Your task to perform on an android device: open app "Truecaller" (install if not already installed) Image 0: 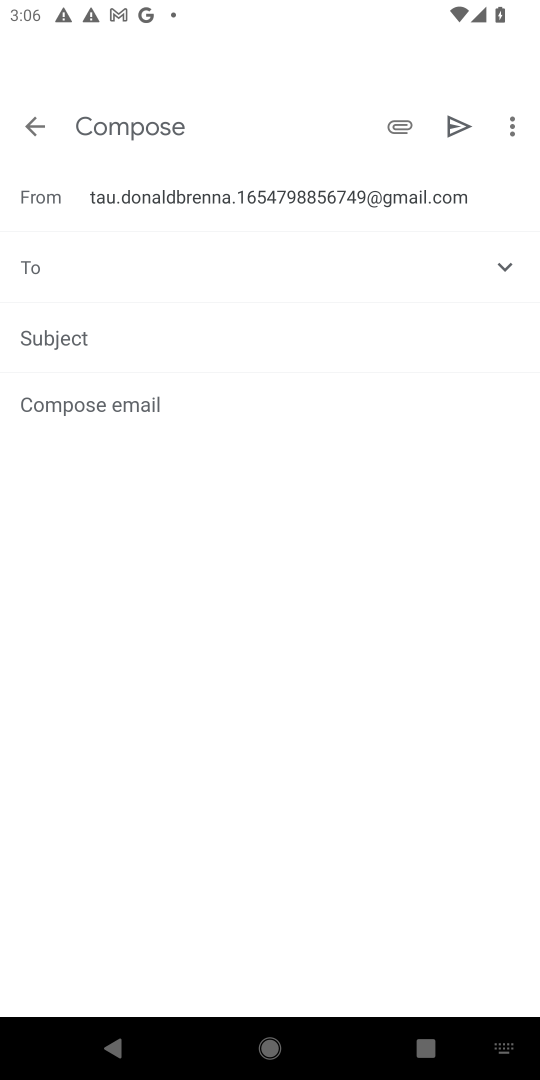
Step 0: press home button
Your task to perform on an android device: open app "Truecaller" (install if not already installed) Image 1: 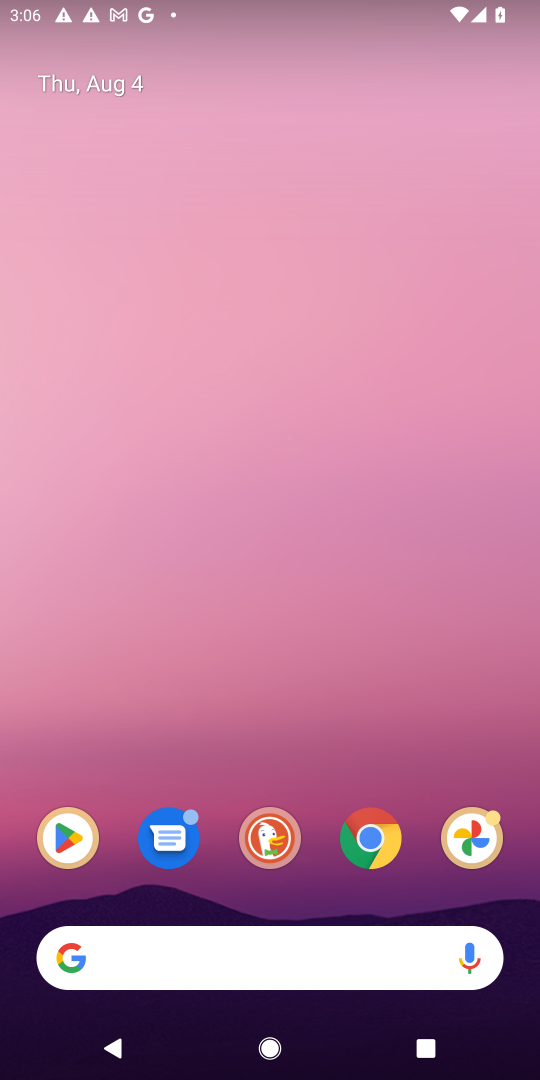
Step 1: click (66, 835)
Your task to perform on an android device: open app "Truecaller" (install if not already installed) Image 2: 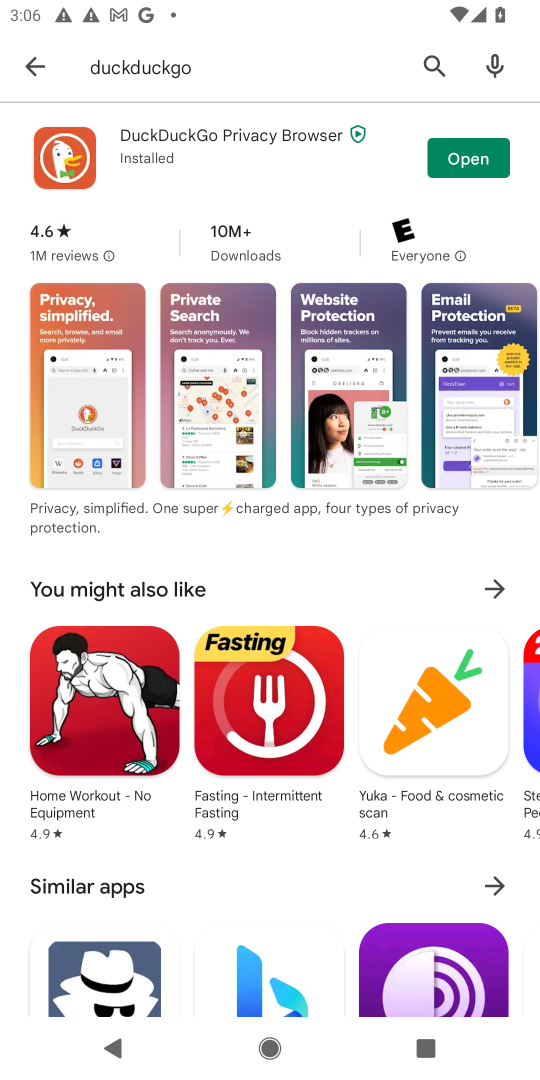
Step 2: click (443, 60)
Your task to perform on an android device: open app "Truecaller" (install if not already installed) Image 3: 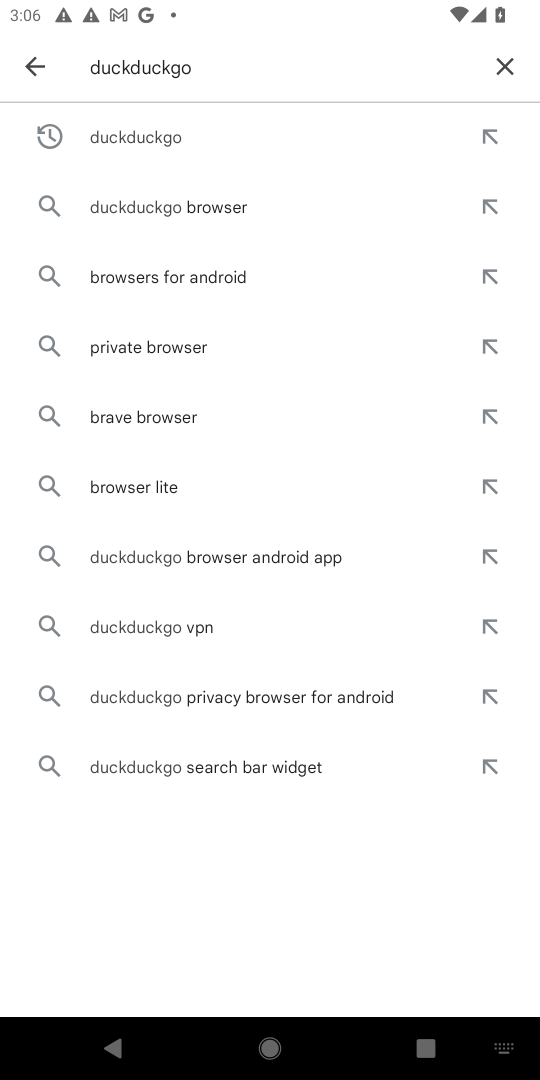
Step 3: click (503, 60)
Your task to perform on an android device: open app "Truecaller" (install if not already installed) Image 4: 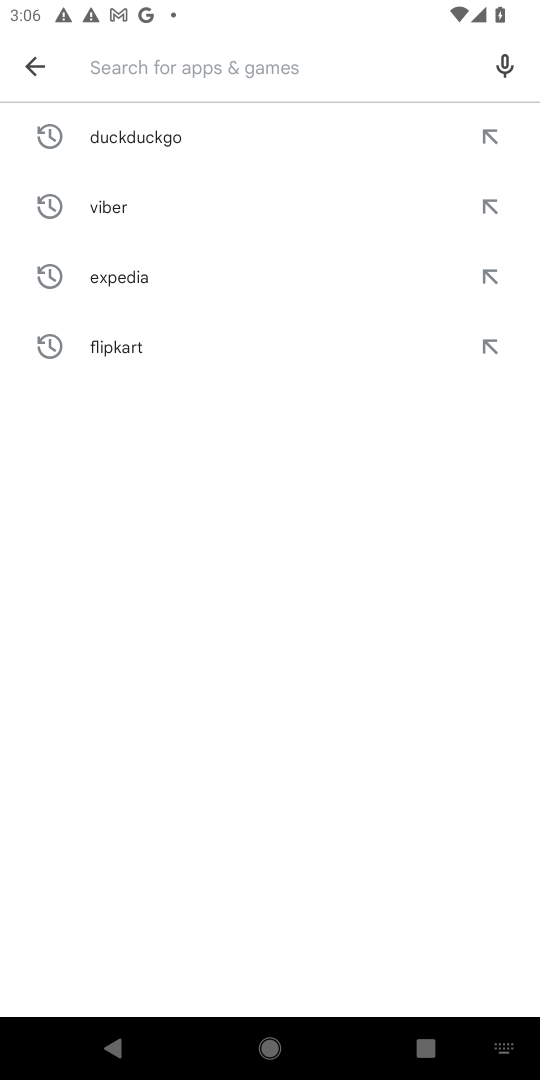
Step 4: type "truecaller"
Your task to perform on an android device: open app "Truecaller" (install if not already installed) Image 5: 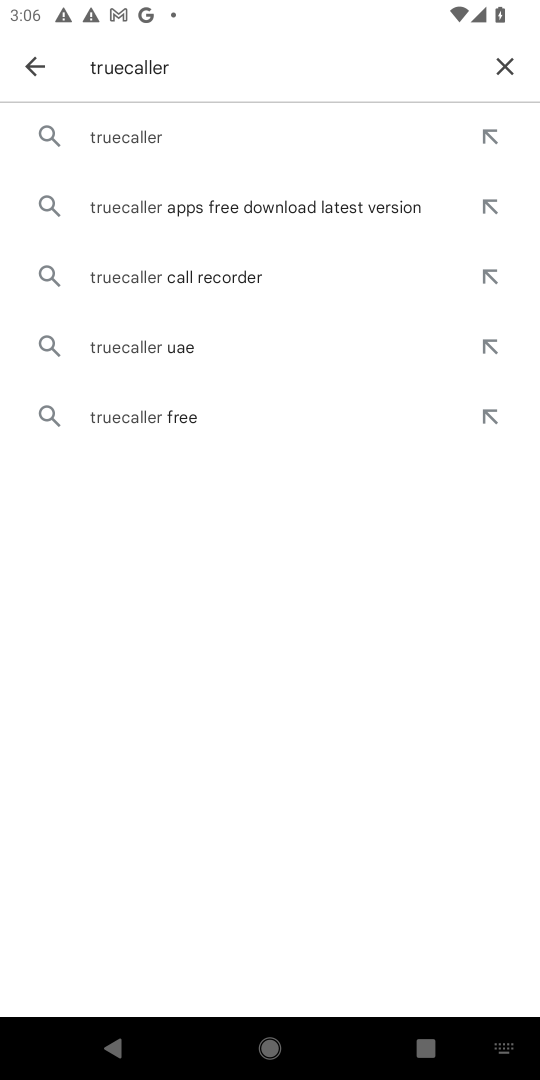
Step 5: click (94, 151)
Your task to perform on an android device: open app "Truecaller" (install if not already installed) Image 6: 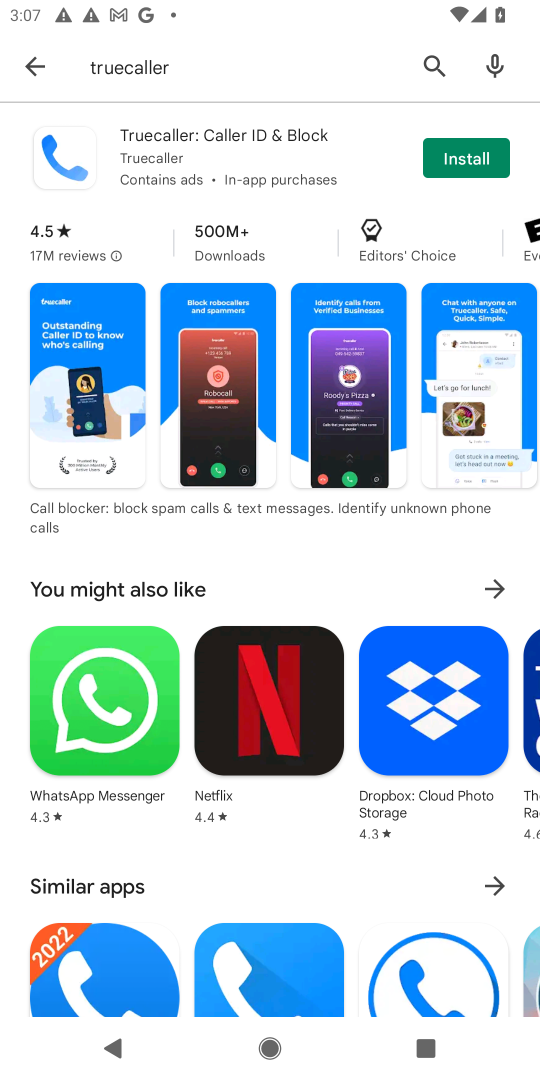
Step 6: click (433, 158)
Your task to perform on an android device: open app "Truecaller" (install if not already installed) Image 7: 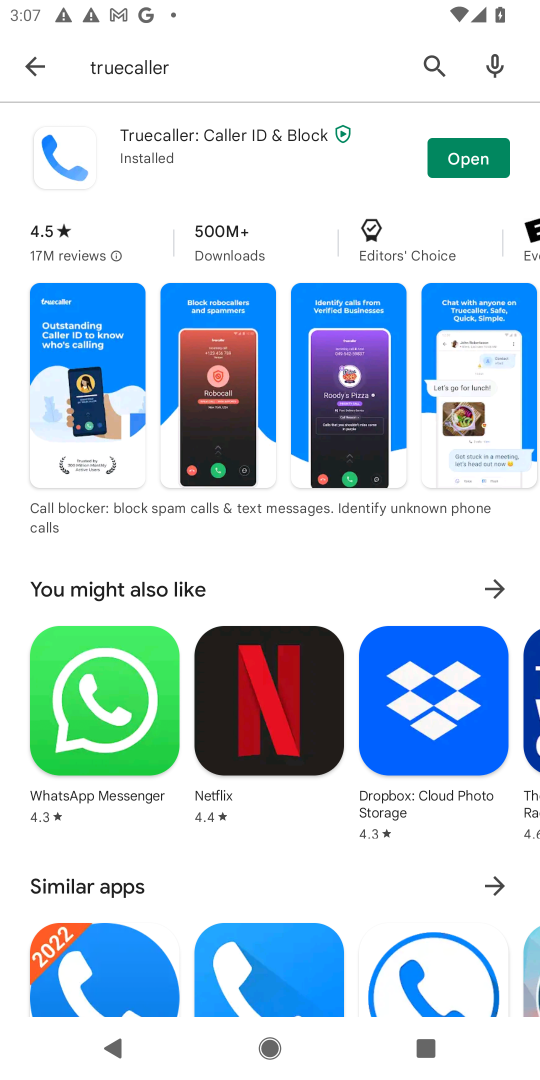
Step 7: click (482, 174)
Your task to perform on an android device: open app "Truecaller" (install if not already installed) Image 8: 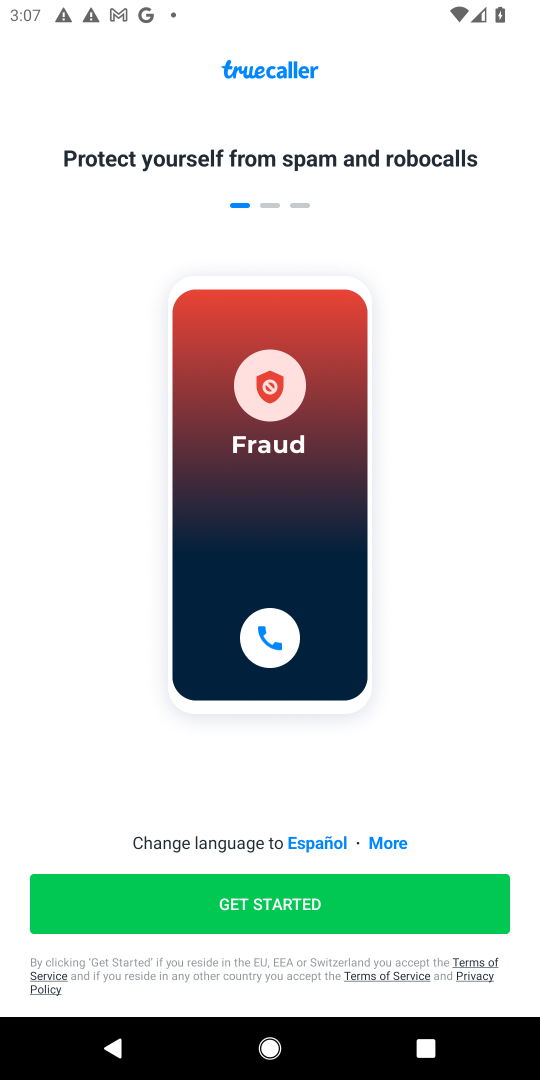
Step 8: task complete